Your task to perform on an android device: Go to notification settings Image 0: 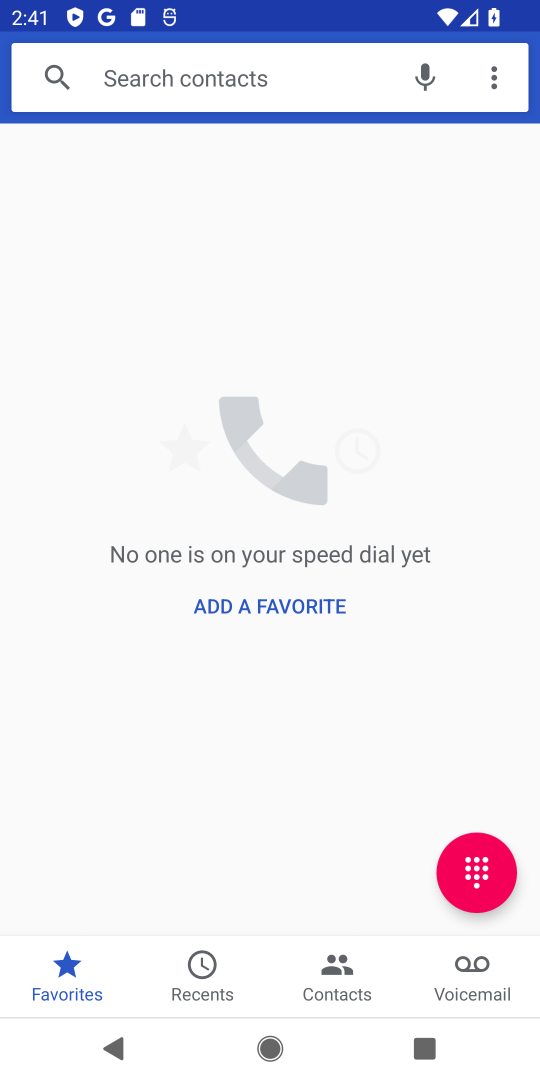
Step 0: press home button
Your task to perform on an android device: Go to notification settings Image 1: 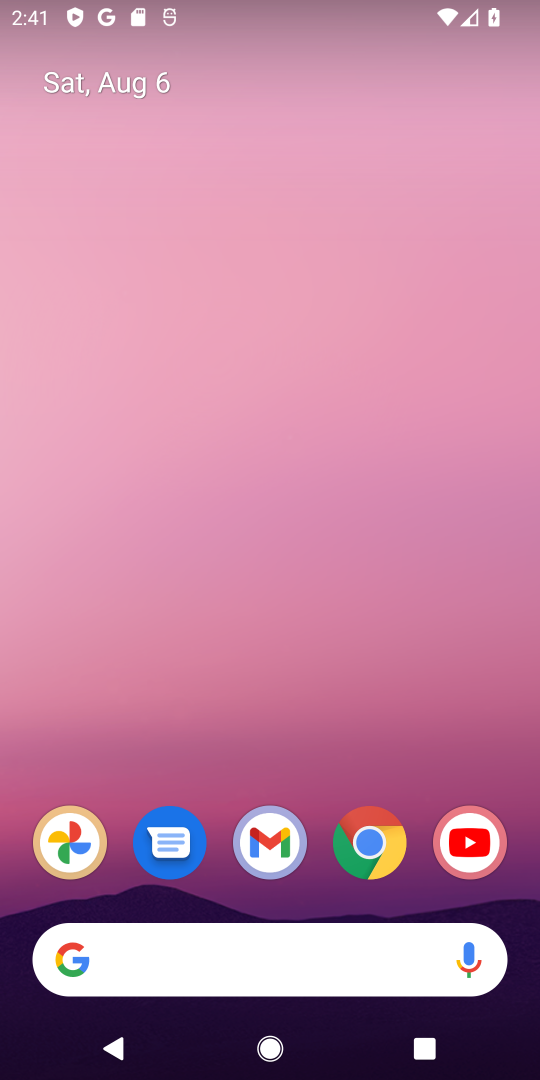
Step 1: drag from (515, 992) to (402, 169)
Your task to perform on an android device: Go to notification settings Image 2: 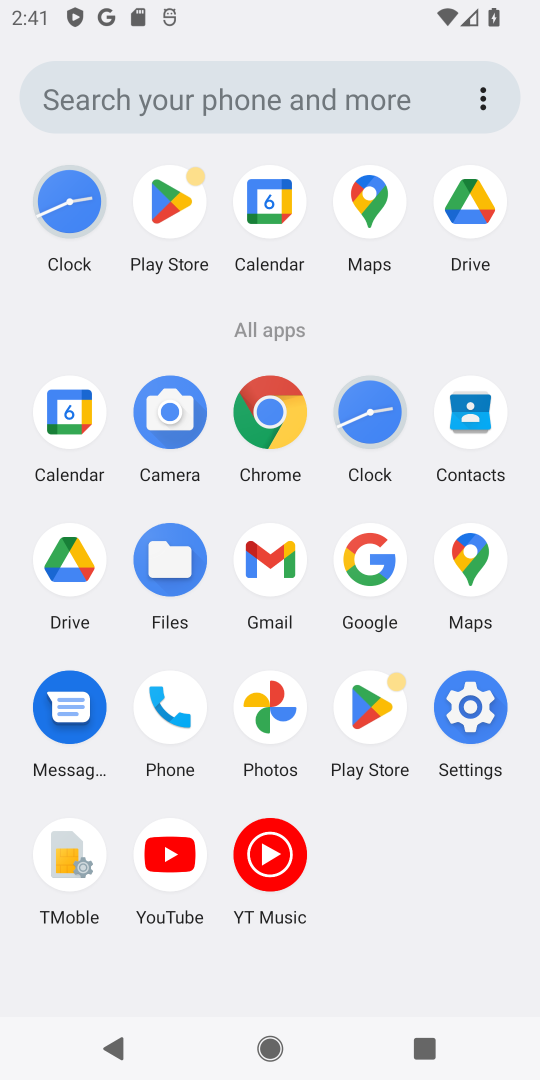
Step 2: click (464, 717)
Your task to perform on an android device: Go to notification settings Image 3: 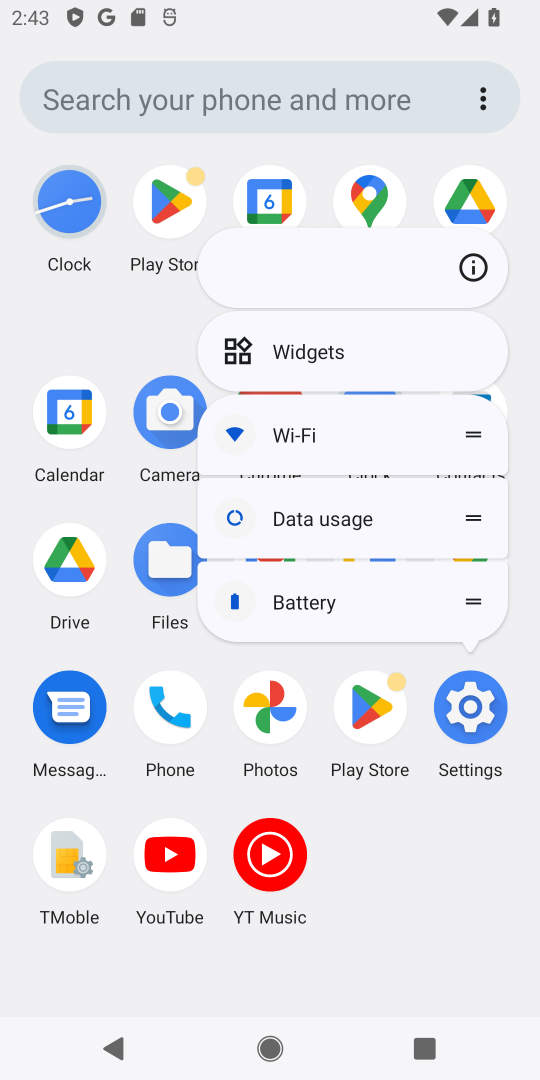
Step 3: click (461, 714)
Your task to perform on an android device: Go to notification settings Image 4: 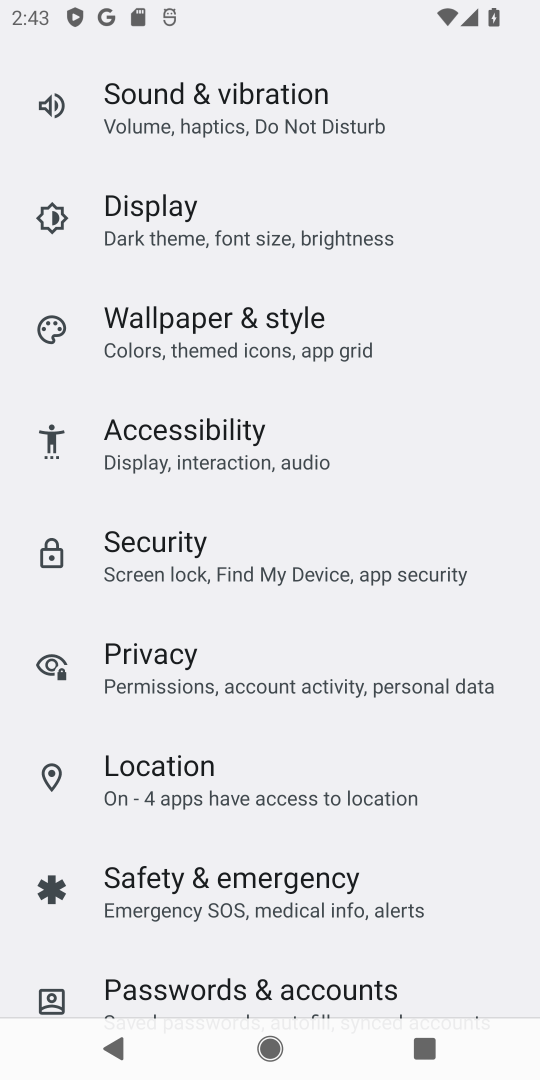
Step 4: drag from (375, 195) to (382, 659)
Your task to perform on an android device: Go to notification settings Image 5: 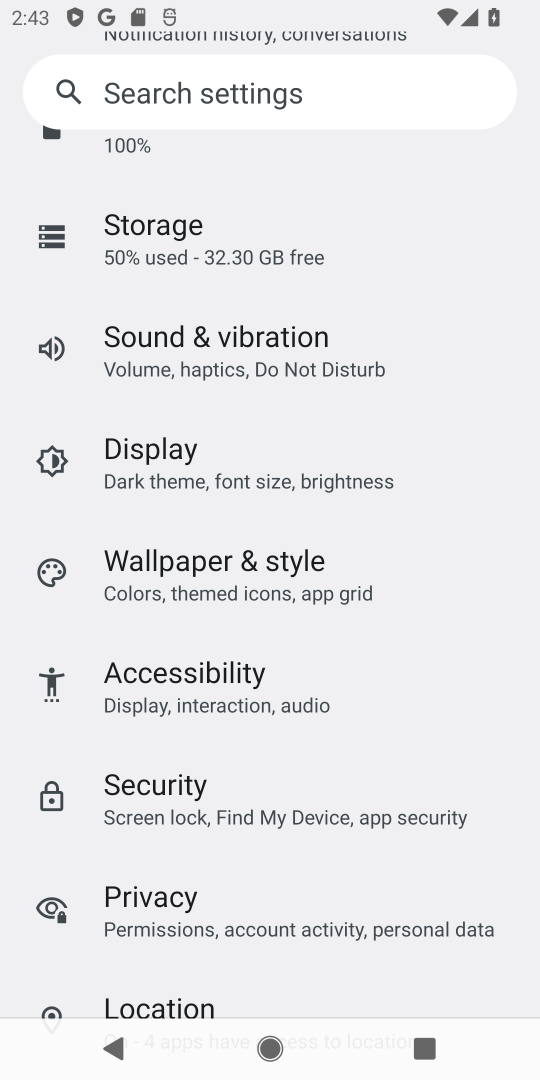
Step 5: drag from (369, 237) to (396, 782)
Your task to perform on an android device: Go to notification settings Image 6: 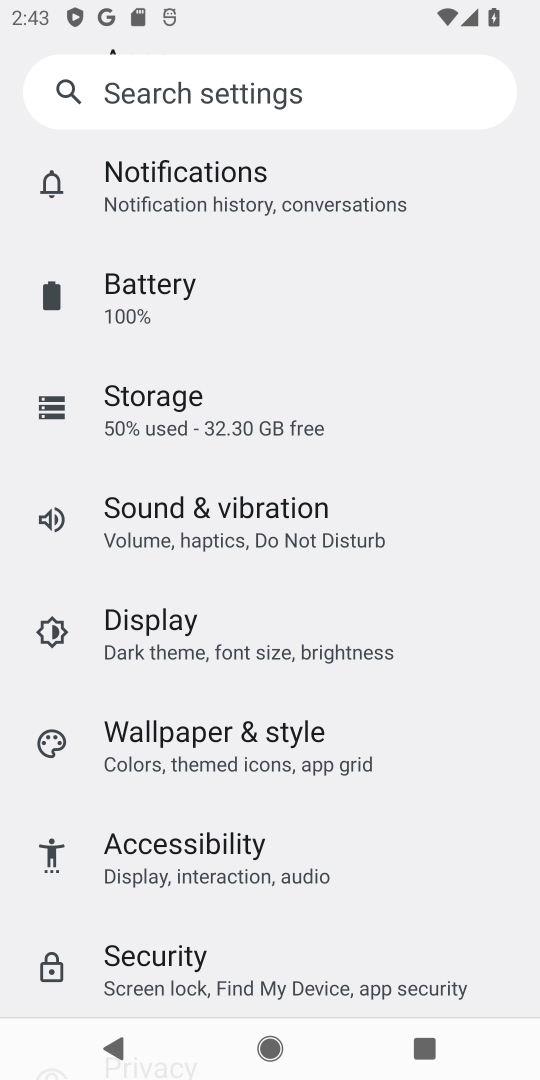
Step 6: click (202, 208)
Your task to perform on an android device: Go to notification settings Image 7: 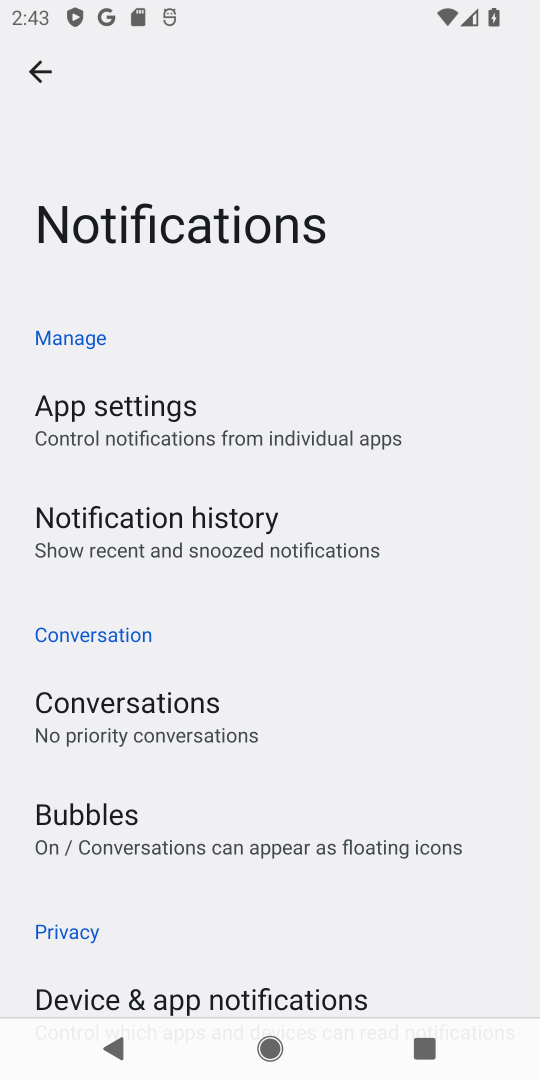
Step 7: task complete